Your task to perform on an android device: What's the news in Bangladesh? Image 0: 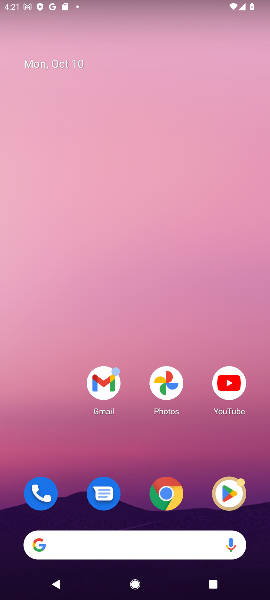
Step 0: click (161, 547)
Your task to perform on an android device: What's the news in Bangladesh? Image 1: 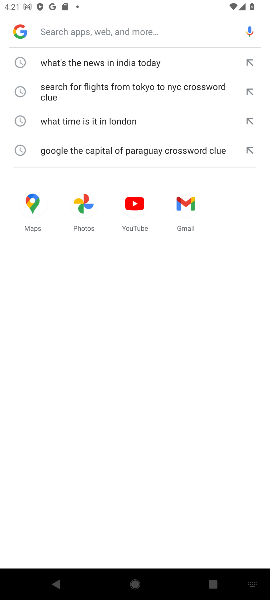
Step 1: type "What's the news in Bangladesh?"
Your task to perform on an android device: What's the news in Bangladesh? Image 2: 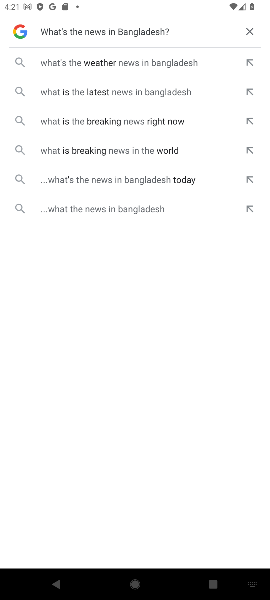
Step 2: click (94, 69)
Your task to perform on an android device: What's the news in Bangladesh? Image 3: 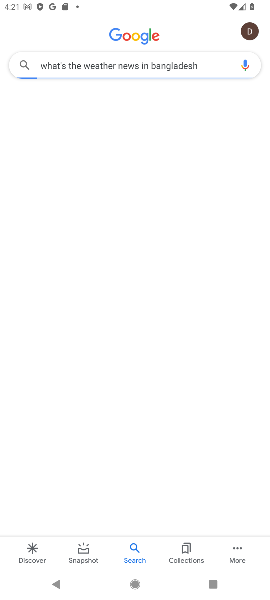
Step 3: task complete